Your task to perform on an android device: star an email in the gmail app Image 0: 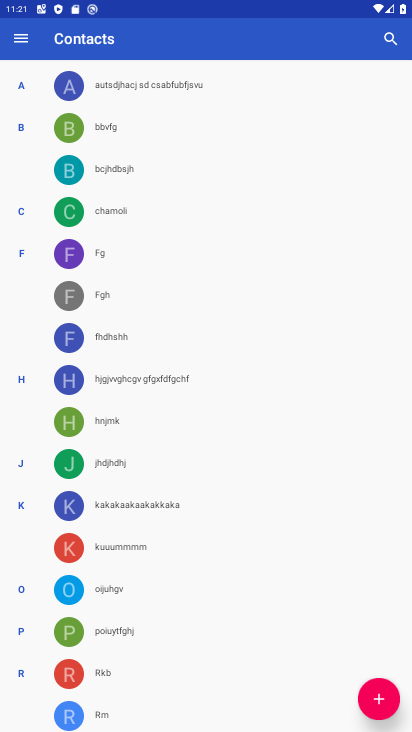
Step 0: press home button
Your task to perform on an android device: star an email in the gmail app Image 1: 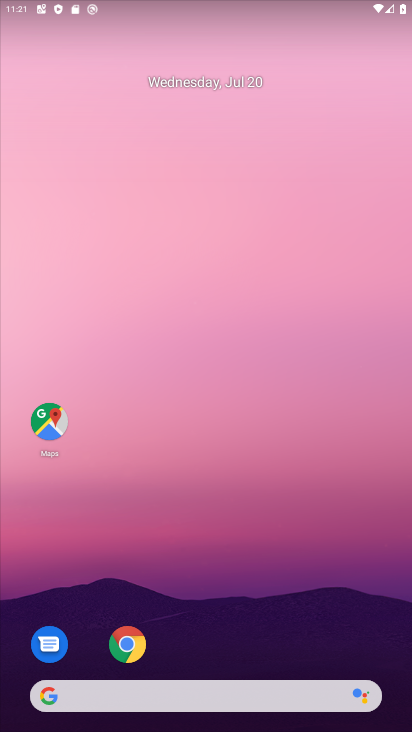
Step 1: drag from (186, 436) to (186, 152)
Your task to perform on an android device: star an email in the gmail app Image 2: 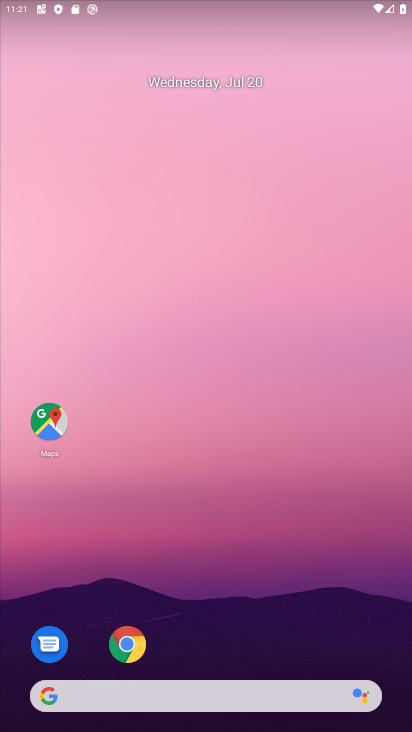
Step 2: drag from (202, 681) to (183, 198)
Your task to perform on an android device: star an email in the gmail app Image 3: 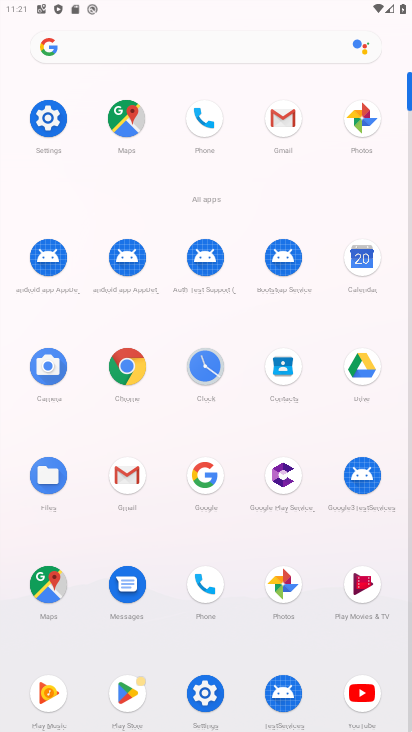
Step 3: click (126, 475)
Your task to perform on an android device: star an email in the gmail app Image 4: 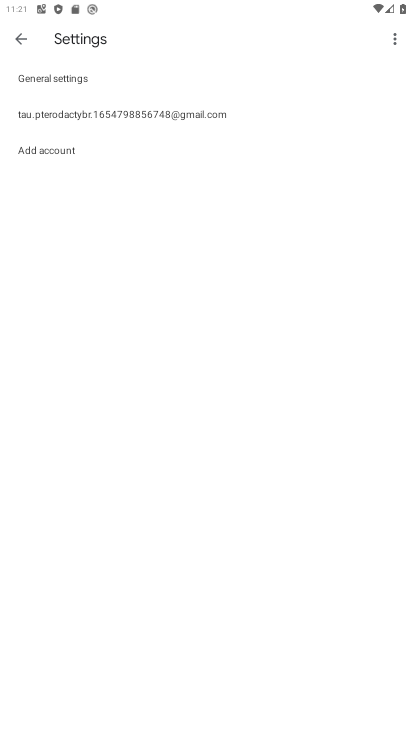
Step 4: click (13, 43)
Your task to perform on an android device: star an email in the gmail app Image 5: 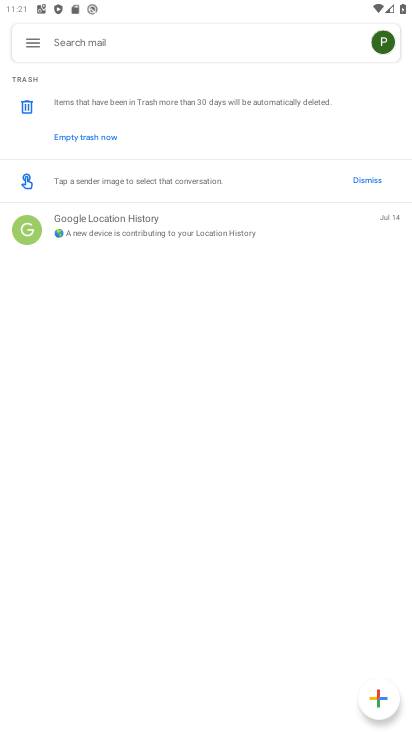
Step 5: click (29, 47)
Your task to perform on an android device: star an email in the gmail app Image 6: 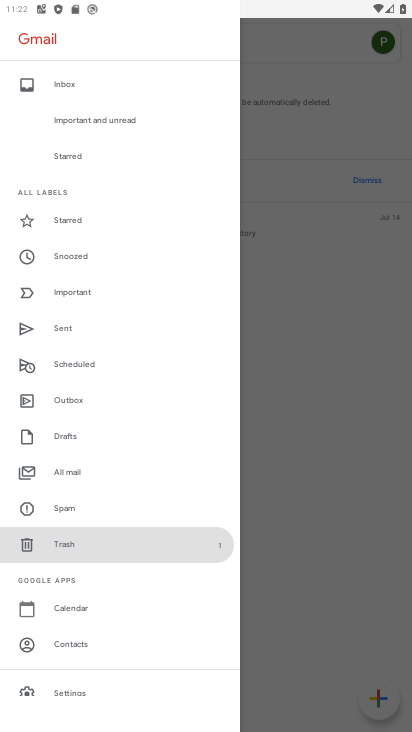
Step 6: click (62, 85)
Your task to perform on an android device: star an email in the gmail app Image 7: 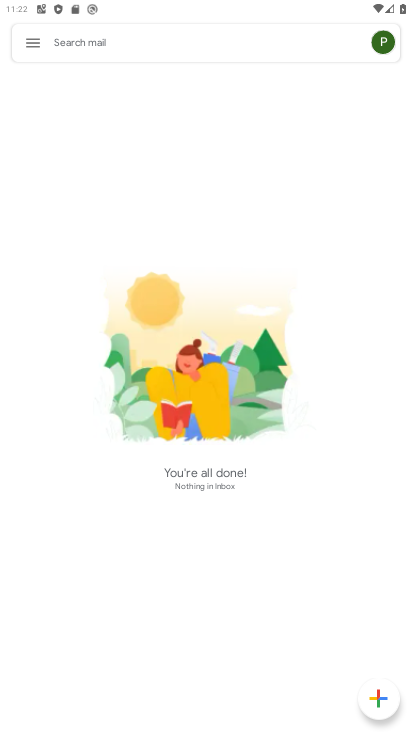
Step 7: task complete